Your task to perform on an android device: Open settings on Google Maps Image 0: 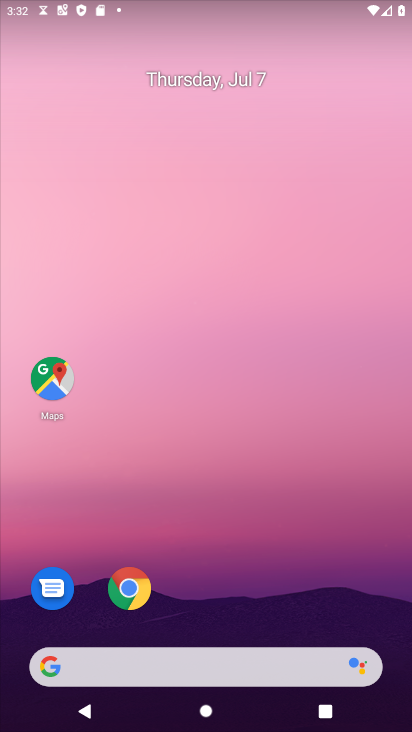
Step 0: click (50, 382)
Your task to perform on an android device: Open settings on Google Maps Image 1: 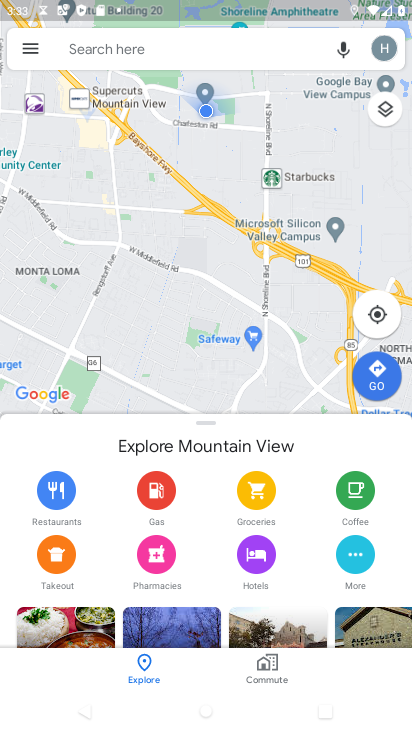
Step 1: click (28, 48)
Your task to perform on an android device: Open settings on Google Maps Image 2: 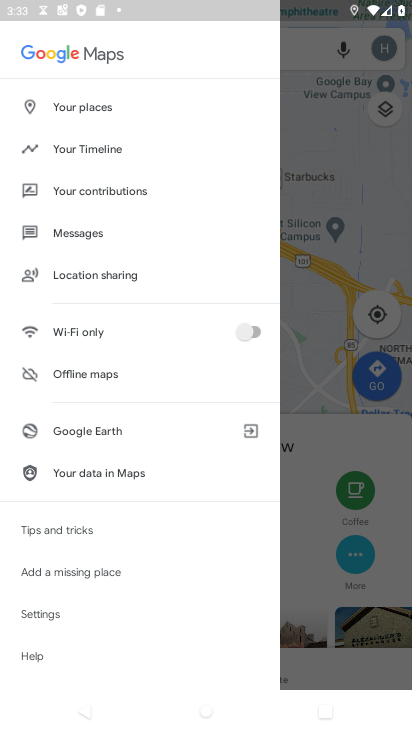
Step 2: drag from (79, 543) to (150, 460)
Your task to perform on an android device: Open settings on Google Maps Image 3: 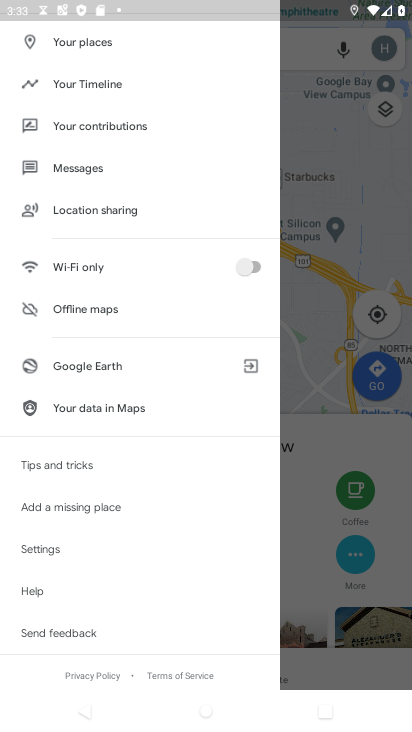
Step 3: click (57, 552)
Your task to perform on an android device: Open settings on Google Maps Image 4: 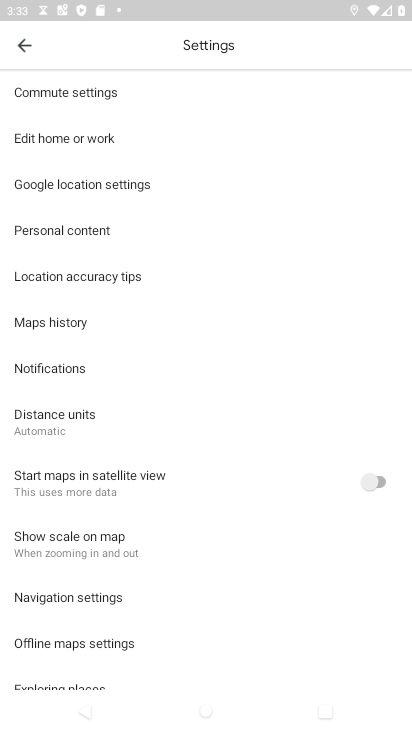
Step 4: task complete